Your task to perform on an android device: Go to ESPN.com Image 0: 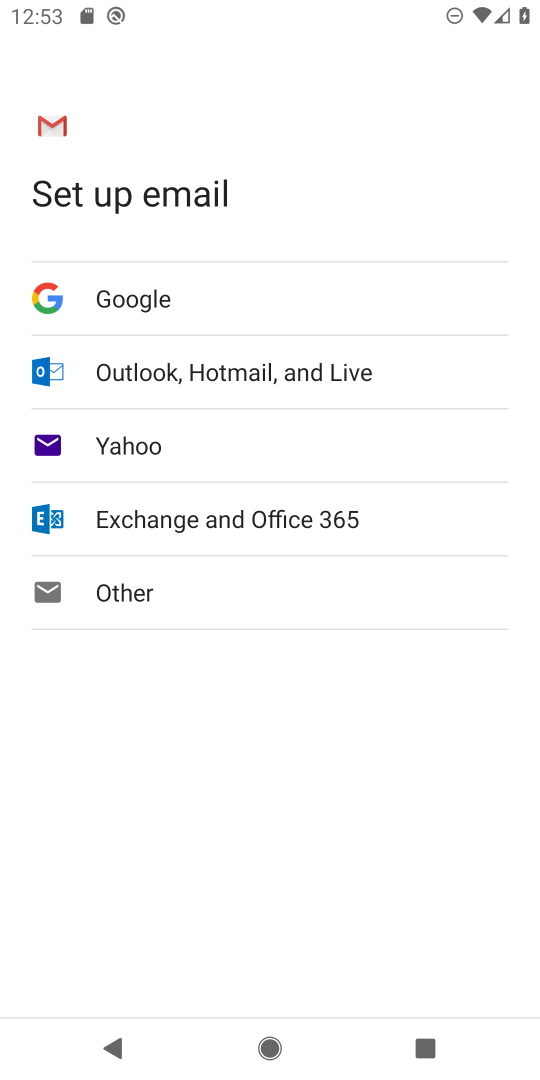
Step 0: press back button
Your task to perform on an android device: Go to ESPN.com Image 1: 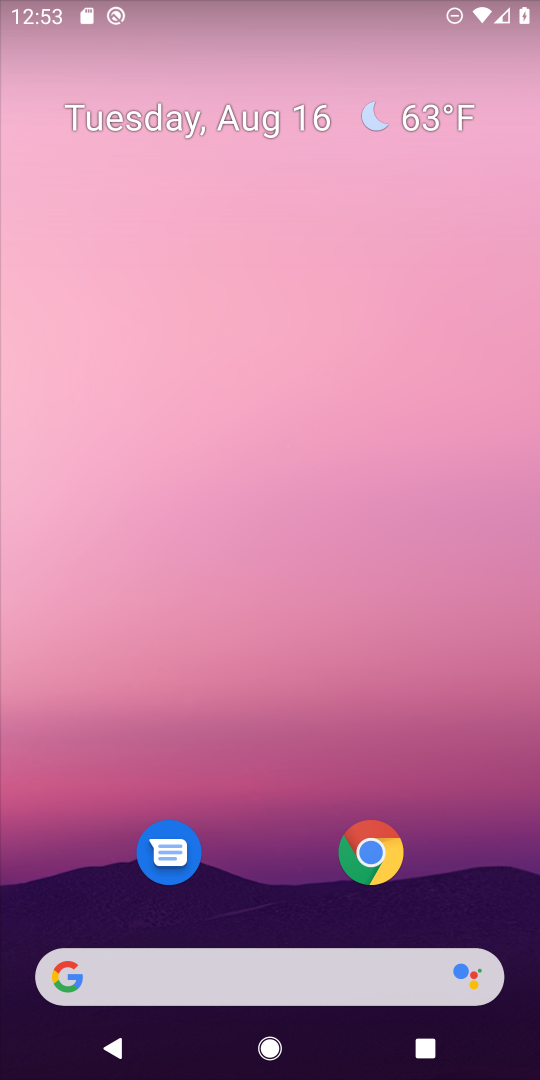
Step 1: click (385, 847)
Your task to perform on an android device: Go to ESPN.com Image 2: 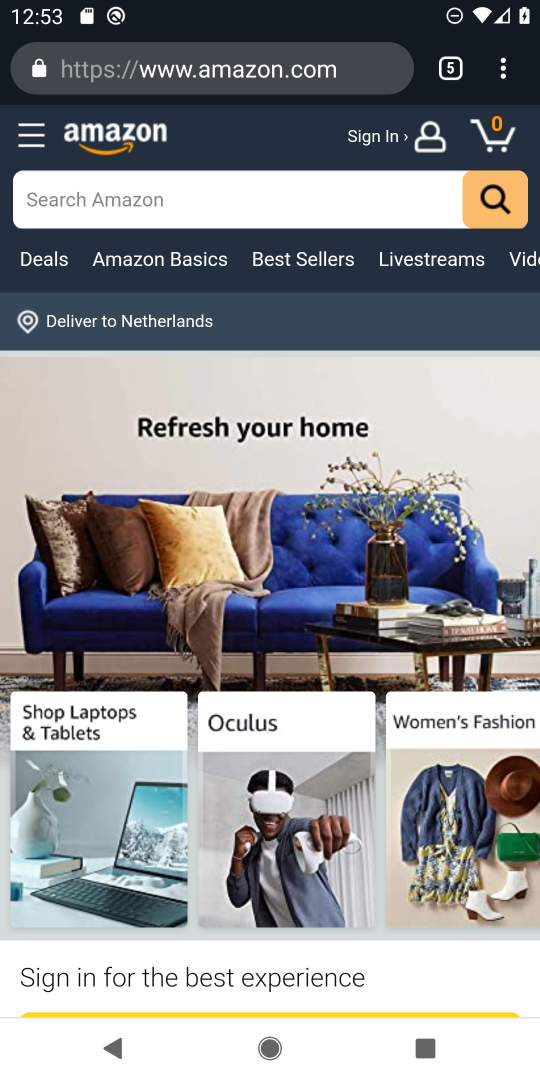
Step 2: click (445, 76)
Your task to perform on an android device: Go to ESPN.com Image 3: 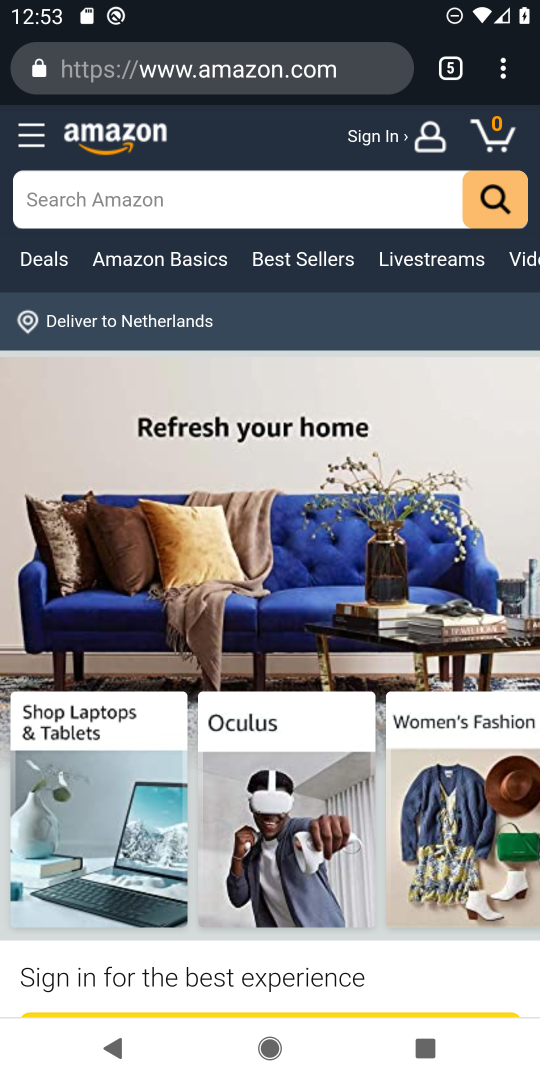
Step 3: click (441, 62)
Your task to perform on an android device: Go to ESPN.com Image 4: 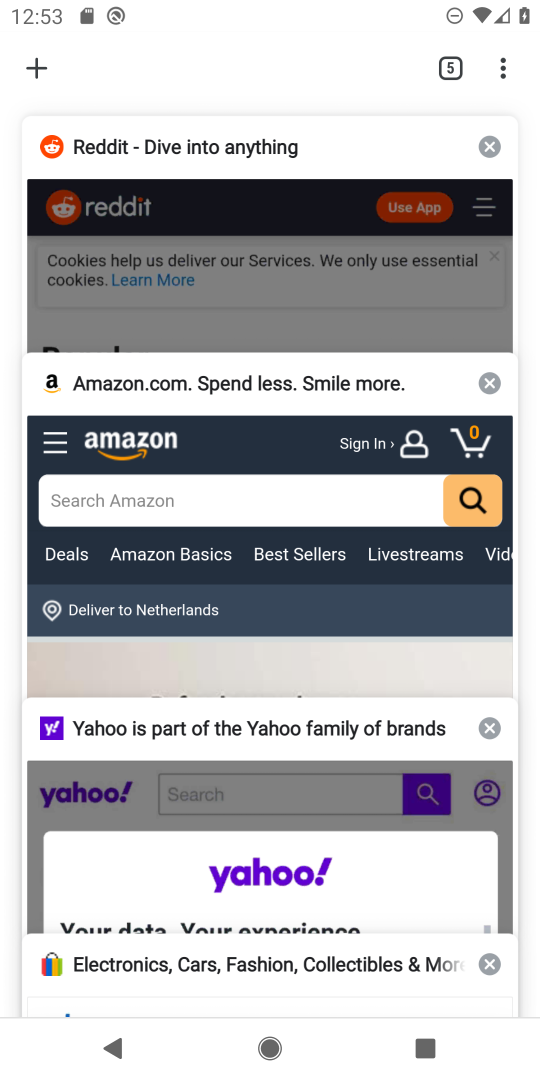
Step 4: drag from (203, 212) to (180, 987)
Your task to perform on an android device: Go to ESPN.com Image 5: 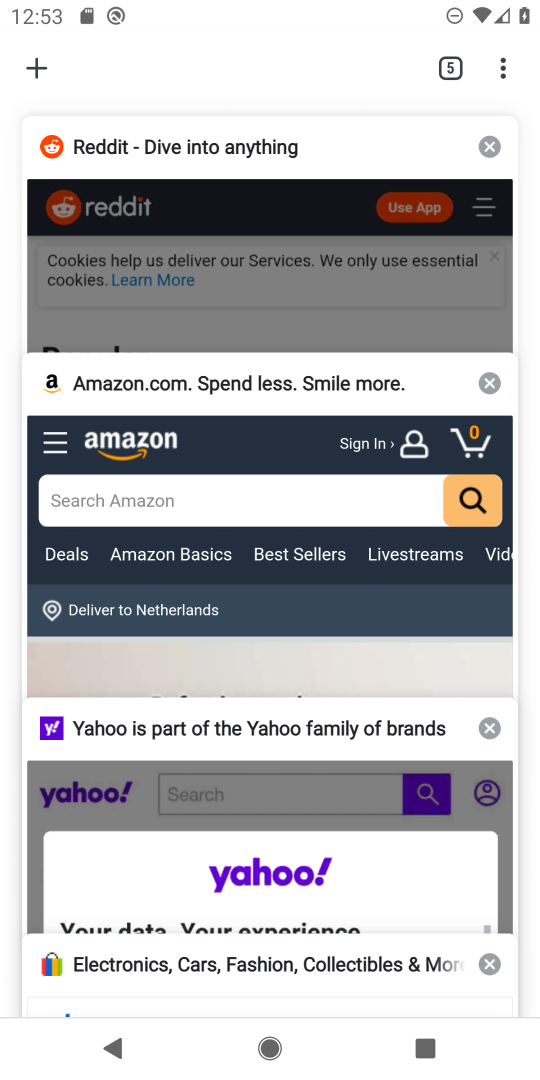
Step 5: click (36, 60)
Your task to perform on an android device: Go to ESPN.com Image 6: 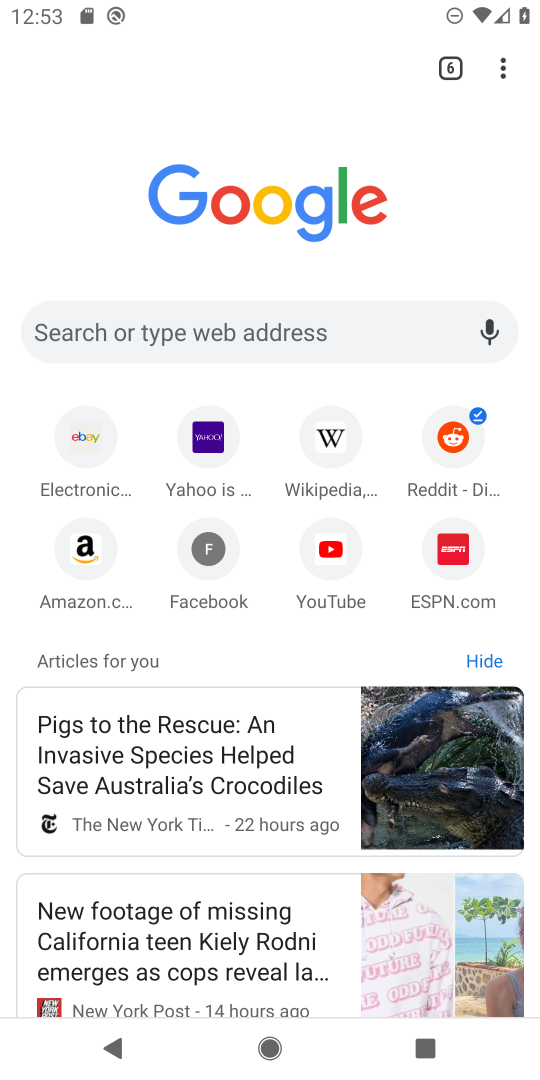
Step 6: click (428, 565)
Your task to perform on an android device: Go to ESPN.com Image 7: 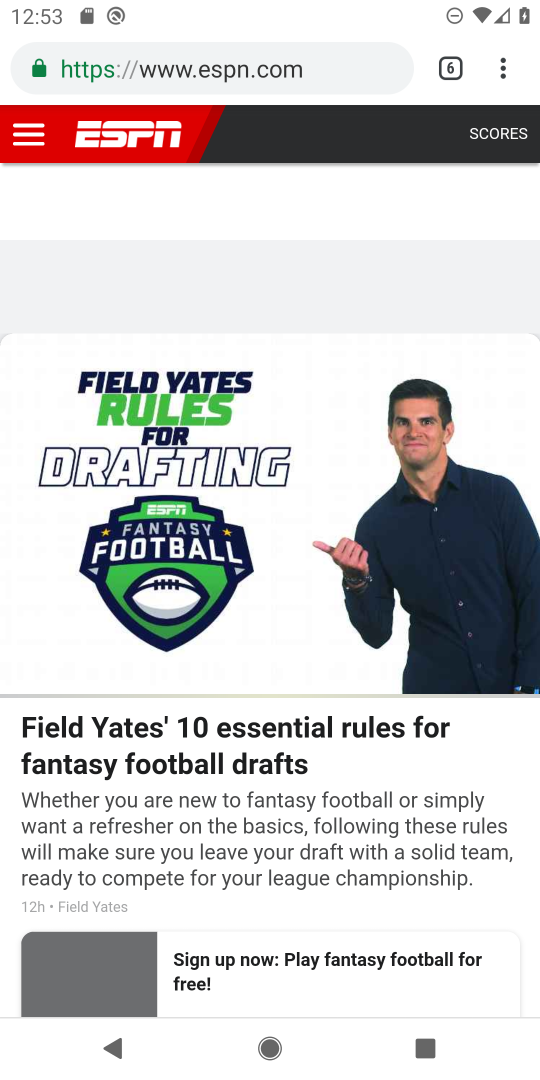
Step 7: task complete